Your task to perform on an android device: Search for pizza restaurants on Maps Image 0: 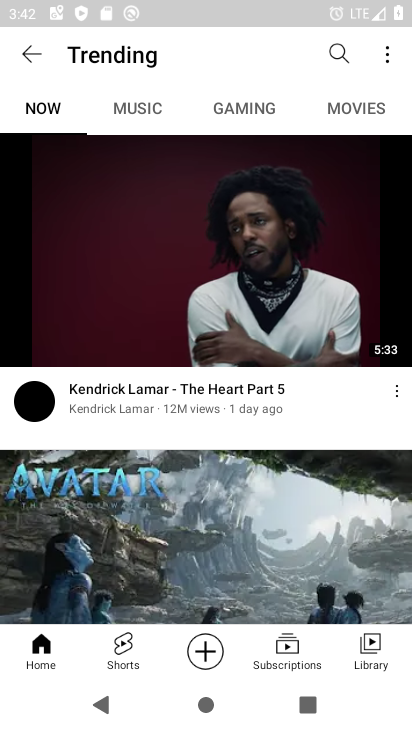
Step 0: press home button
Your task to perform on an android device: Search for pizza restaurants on Maps Image 1: 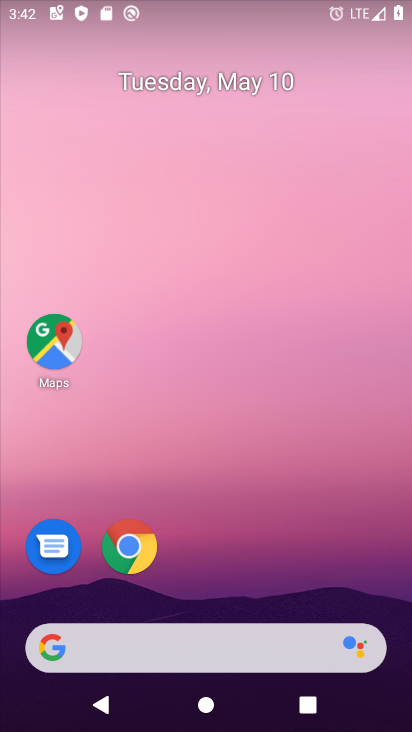
Step 1: click (83, 351)
Your task to perform on an android device: Search for pizza restaurants on Maps Image 2: 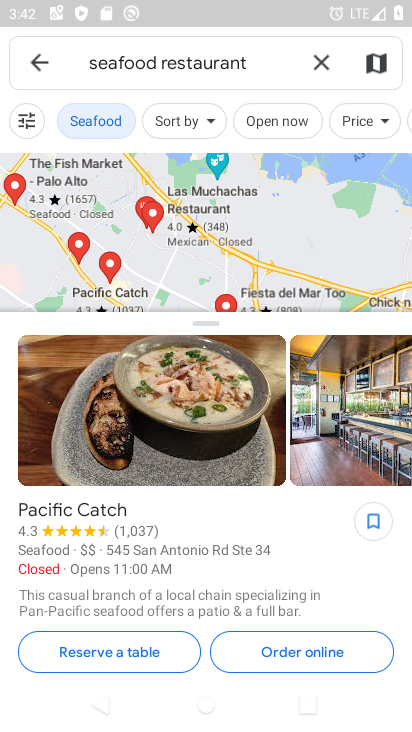
Step 2: click (317, 57)
Your task to perform on an android device: Search for pizza restaurants on Maps Image 3: 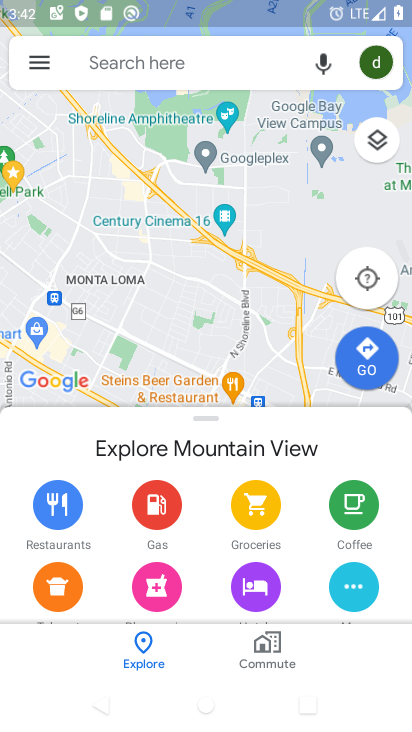
Step 3: click (174, 76)
Your task to perform on an android device: Search for pizza restaurants on Maps Image 4: 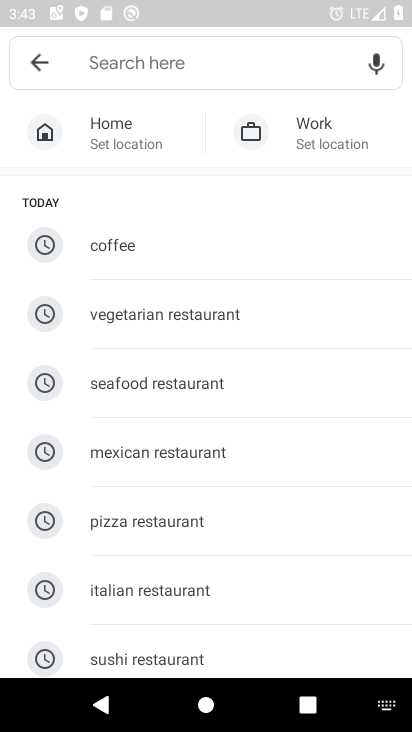
Step 4: type "Pizza restaurants"
Your task to perform on an android device: Search for pizza restaurants on Maps Image 5: 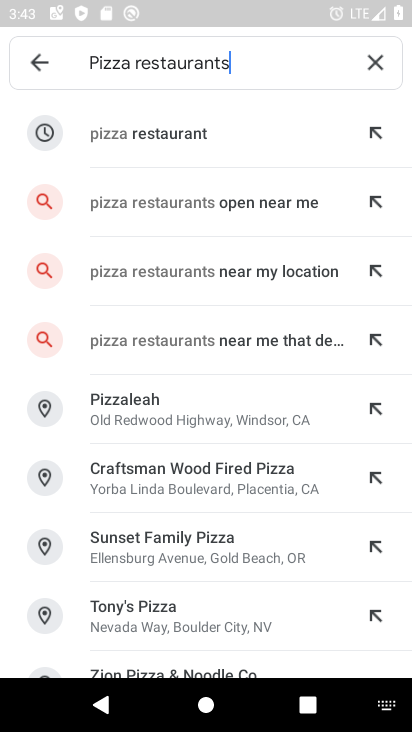
Step 5: click (178, 141)
Your task to perform on an android device: Search for pizza restaurants on Maps Image 6: 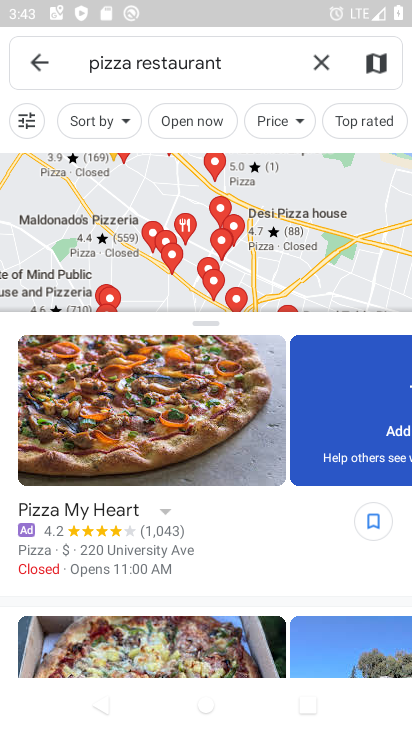
Step 6: task complete